Your task to perform on an android device: check google app version Image 0: 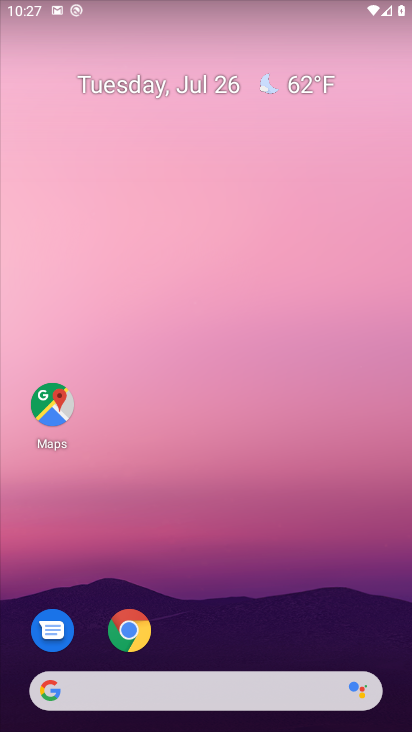
Step 0: press home button
Your task to perform on an android device: check google app version Image 1: 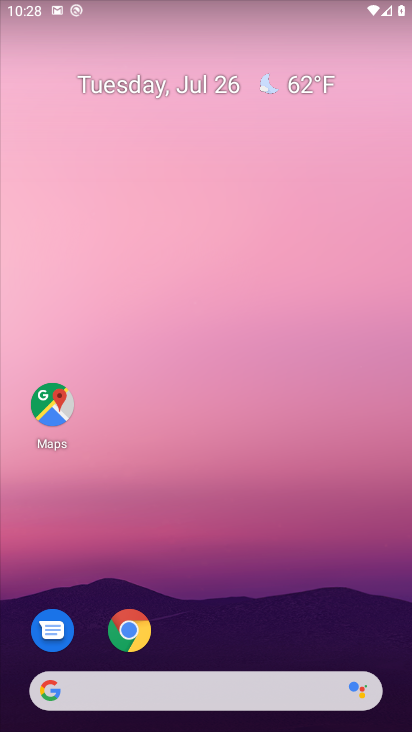
Step 1: drag from (228, 632) to (211, 56)
Your task to perform on an android device: check google app version Image 2: 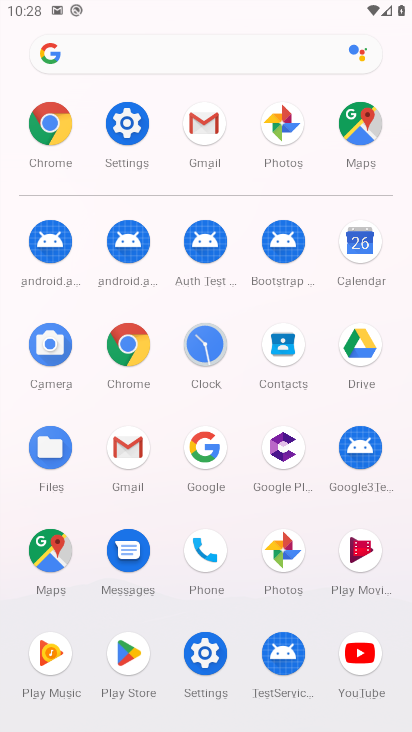
Step 2: click (198, 444)
Your task to perform on an android device: check google app version Image 3: 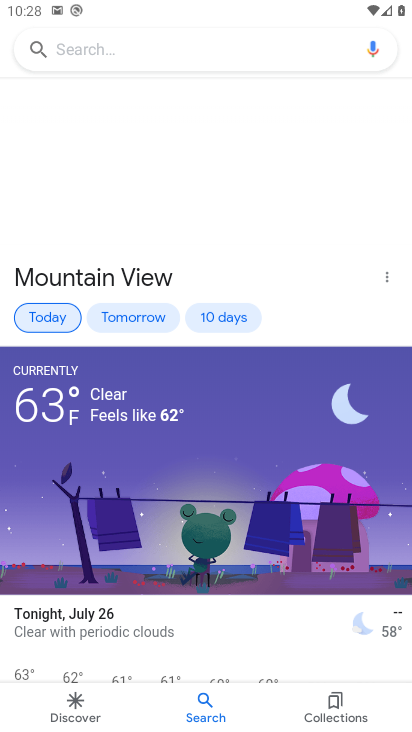
Step 3: click (86, 704)
Your task to perform on an android device: check google app version Image 4: 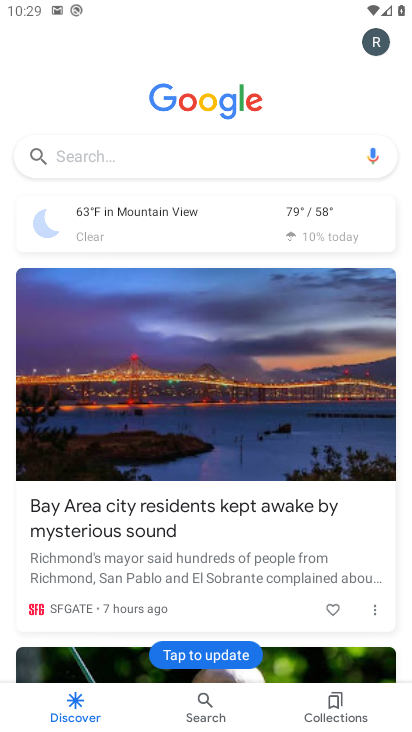
Step 4: click (372, 38)
Your task to perform on an android device: check google app version Image 5: 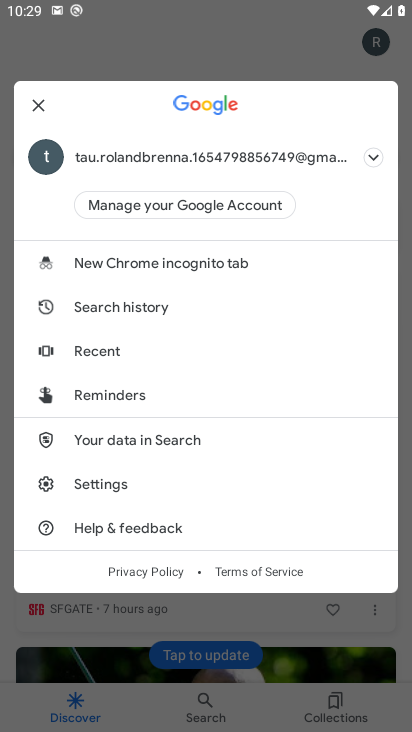
Step 5: click (96, 482)
Your task to perform on an android device: check google app version Image 6: 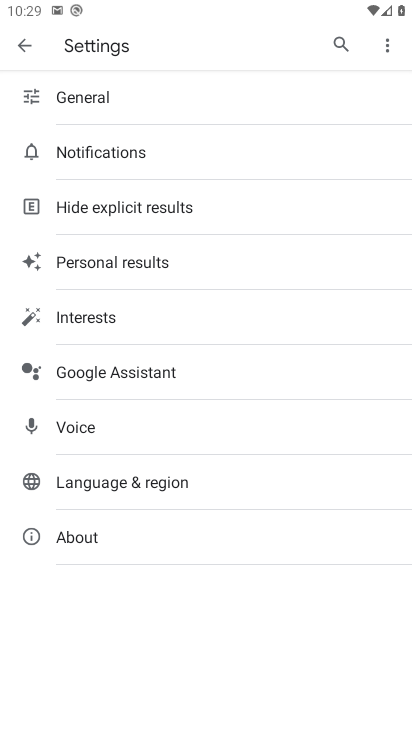
Step 6: click (63, 547)
Your task to perform on an android device: check google app version Image 7: 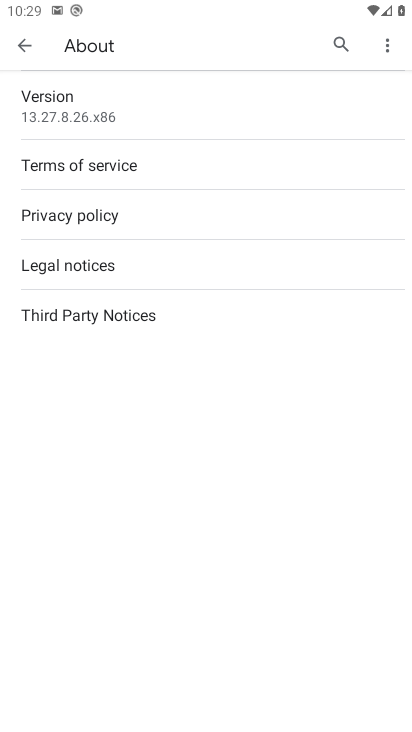
Step 7: task complete